Your task to perform on an android device: Open CNN.com Image 0: 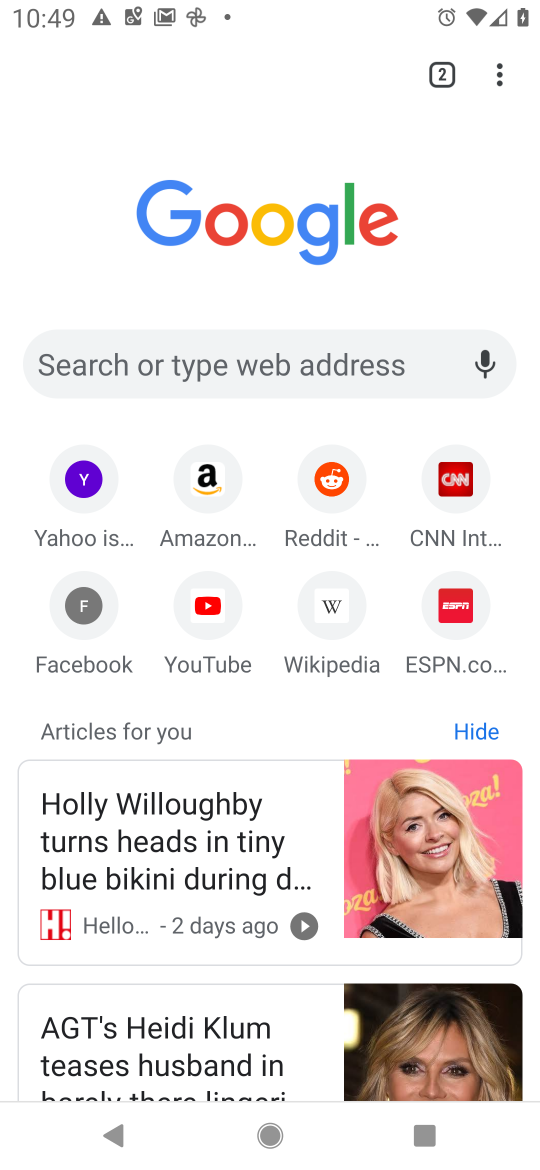
Step 0: press home button
Your task to perform on an android device: Open CNN.com Image 1: 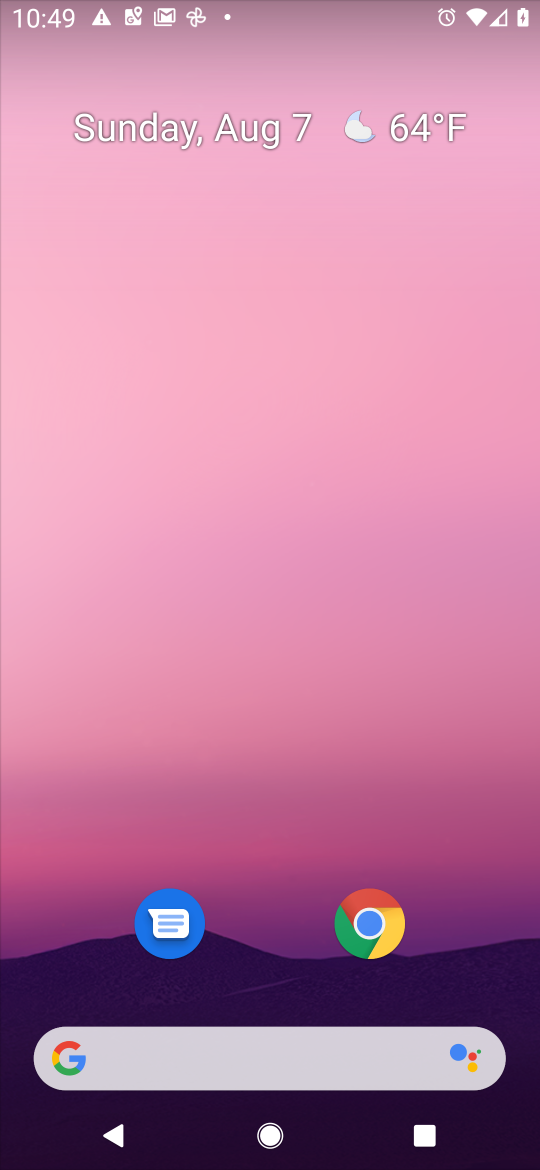
Step 1: drag from (465, 838) to (247, 40)
Your task to perform on an android device: Open CNN.com Image 2: 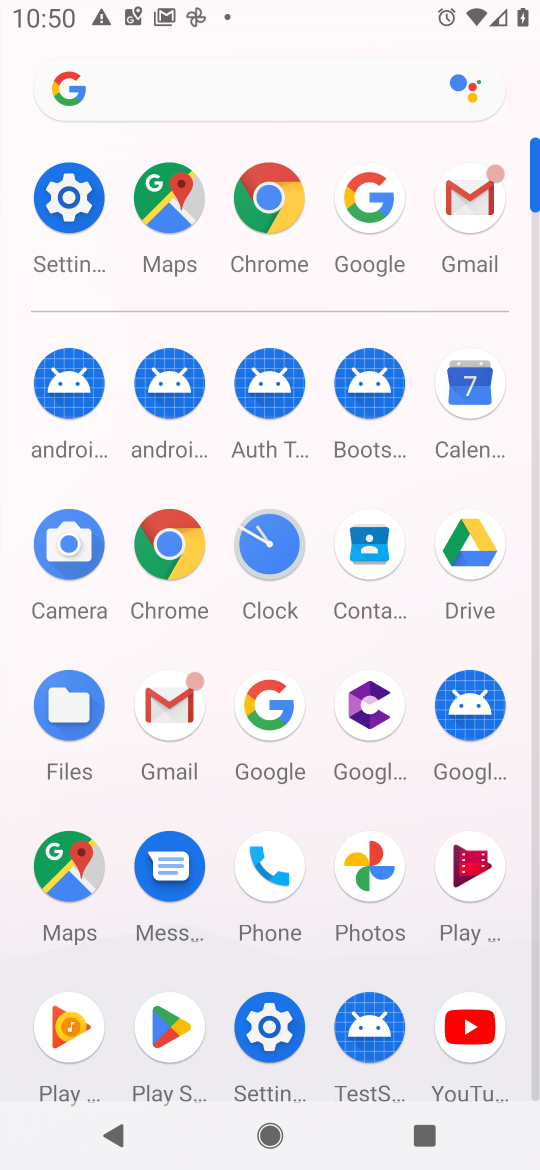
Step 2: click (257, 718)
Your task to perform on an android device: Open CNN.com Image 3: 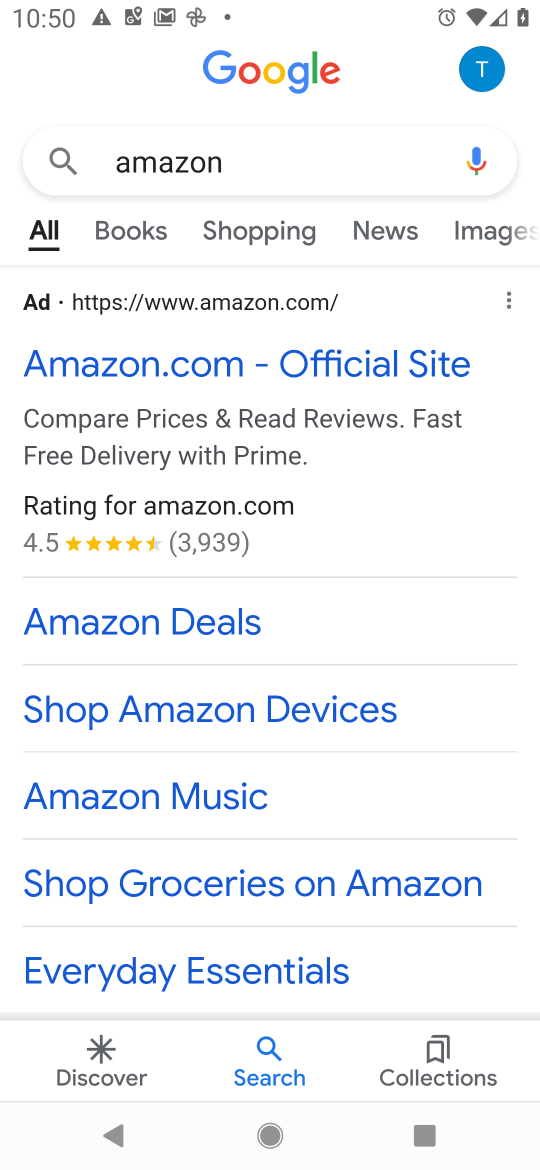
Step 3: press back button
Your task to perform on an android device: Open CNN.com Image 4: 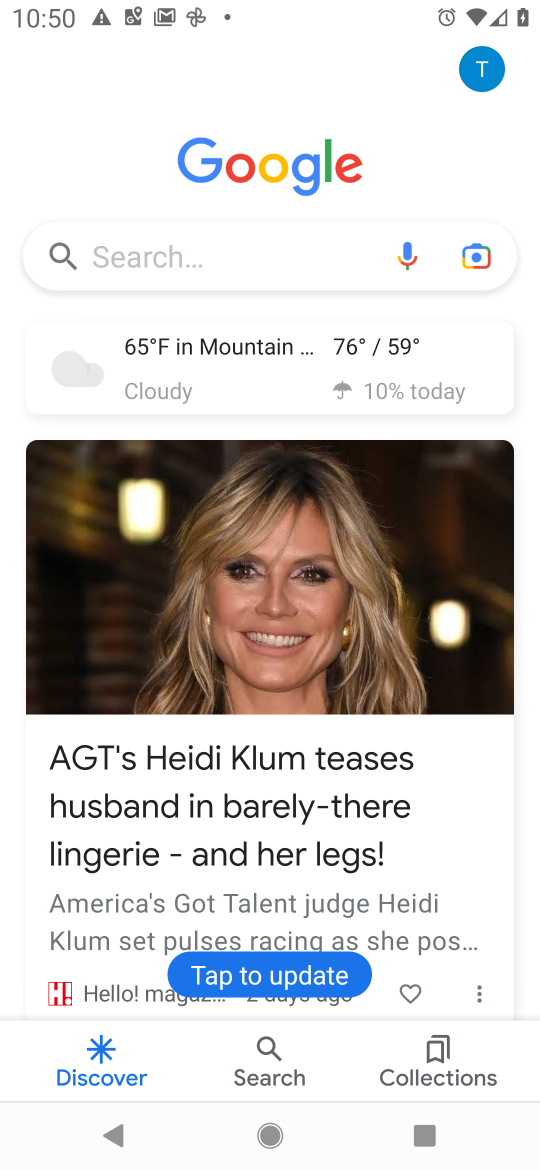
Step 4: click (157, 249)
Your task to perform on an android device: Open CNN.com Image 5: 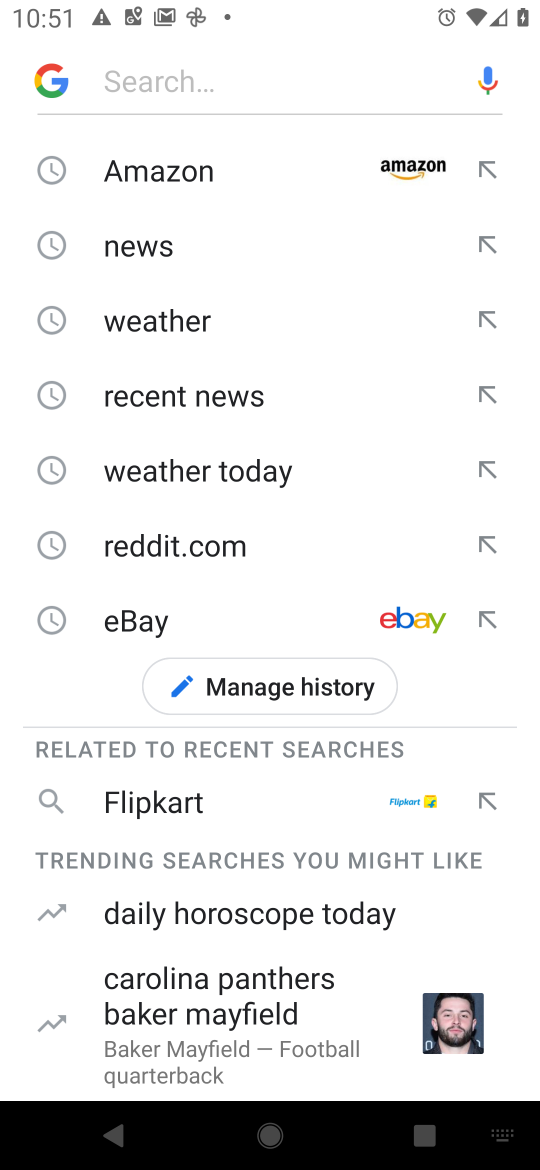
Step 5: type "CNN.com"
Your task to perform on an android device: Open CNN.com Image 6: 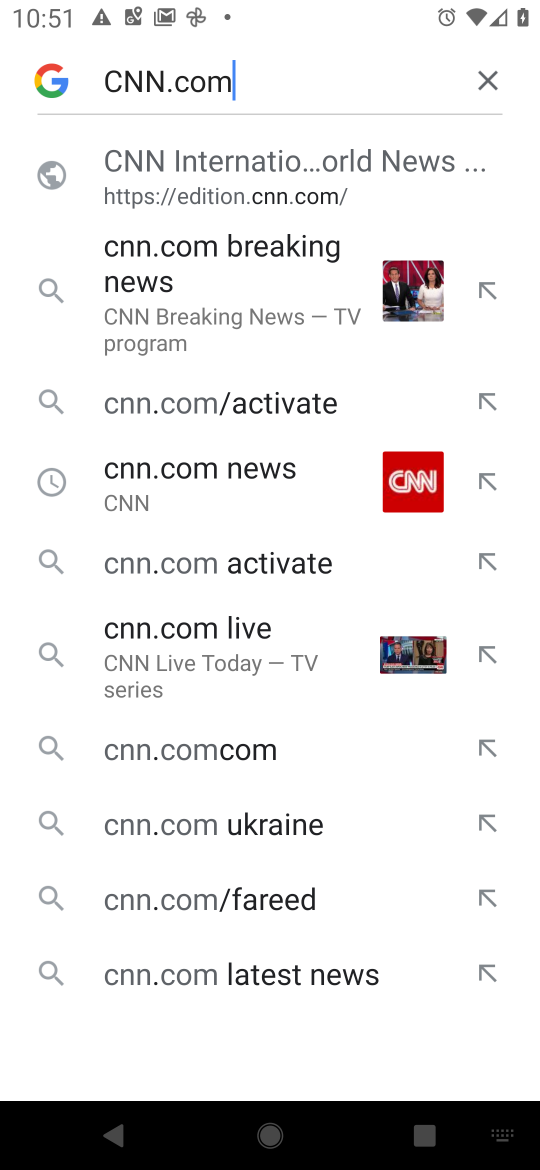
Step 6: click (214, 246)
Your task to perform on an android device: Open CNN.com Image 7: 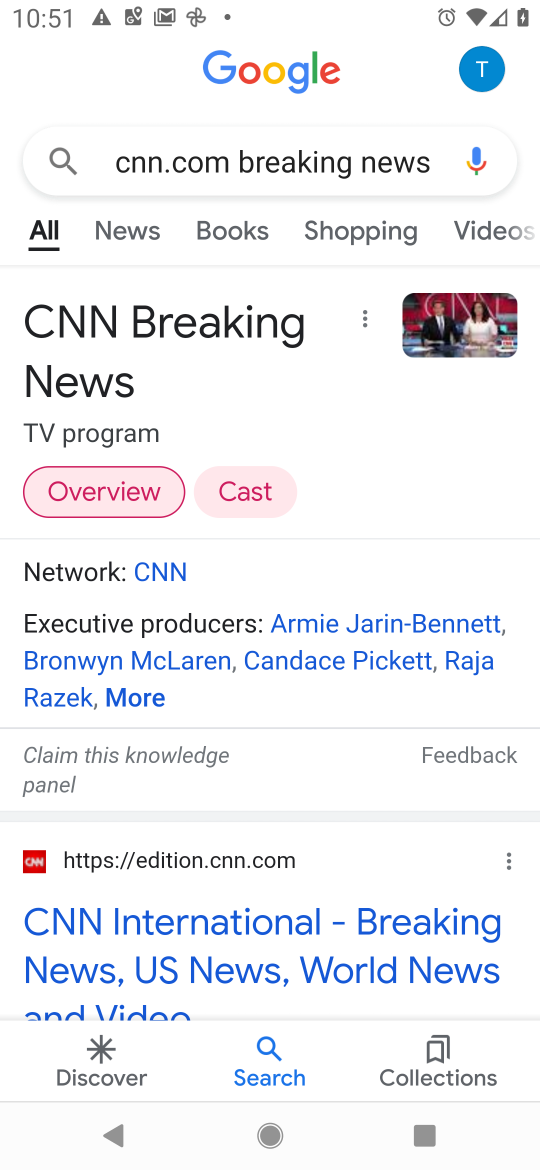
Step 7: task complete